Your task to perform on an android device: toggle pop-ups in chrome Image 0: 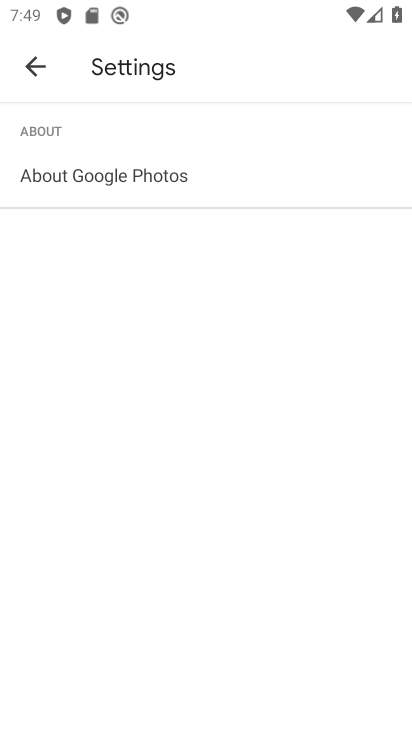
Step 0: press home button
Your task to perform on an android device: toggle pop-ups in chrome Image 1: 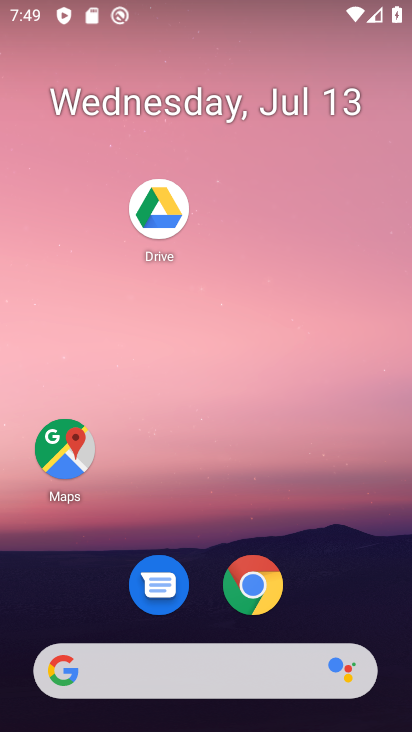
Step 1: click (243, 586)
Your task to perform on an android device: toggle pop-ups in chrome Image 2: 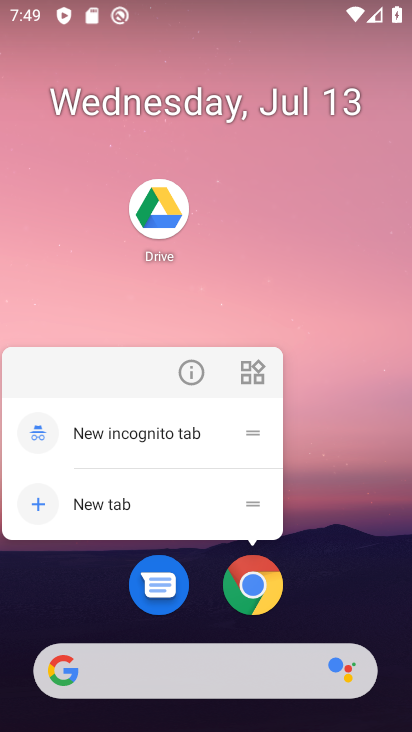
Step 2: click (247, 584)
Your task to perform on an android device: toggle pop-ups in chrome Image 3: 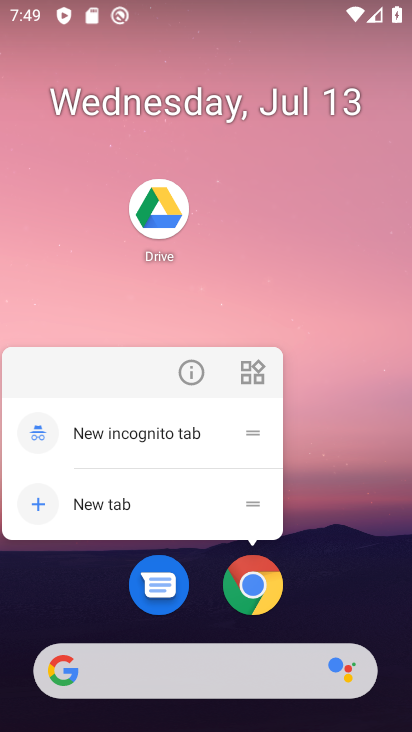
Step 3: click (247, 584)
Your task to perform on an android device: toggle pop-ups in chrome Image 4: 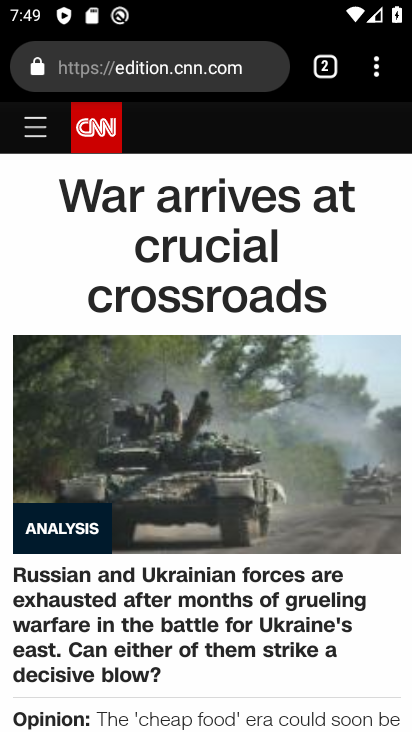
Step 4: drag from (372, 63) to (257, 597)
Your task to perform on an android device: toggle pop-ups in chrome Image 5: 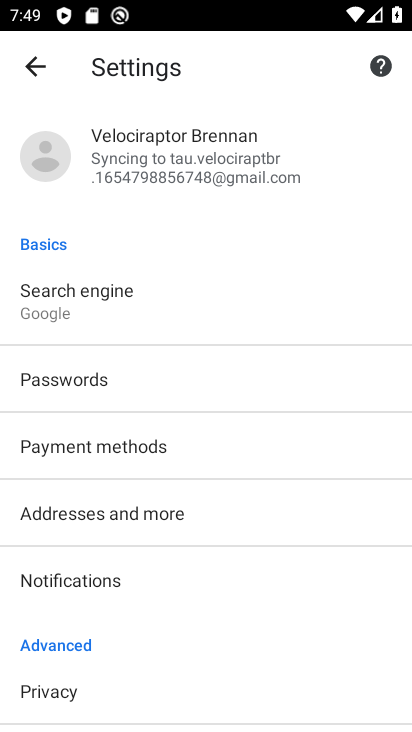
Step 5: drag from (185, 669) to (225, 285)
Your task to perform on an android device: toggle pop-ups in chrome Image 6: 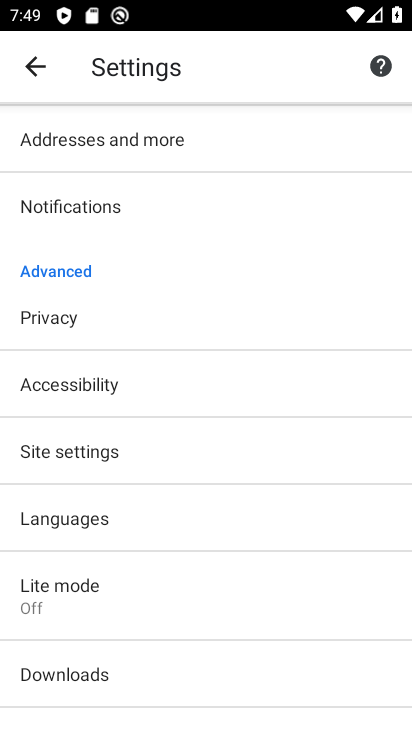
Step 6: click (108, 451)
Your task to perform on an android device: toggle pop-ups in chrome Image 7: 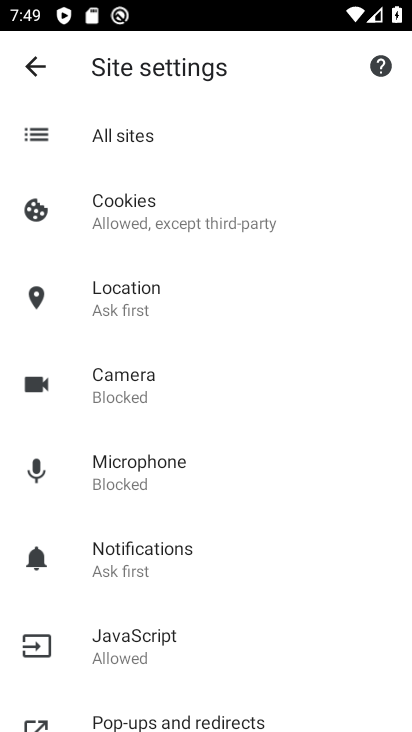
Step 7: drag from (252, 627) to (302, 322)
Your task to perform on an android device: toggle pop-ups in chrome Image 8: 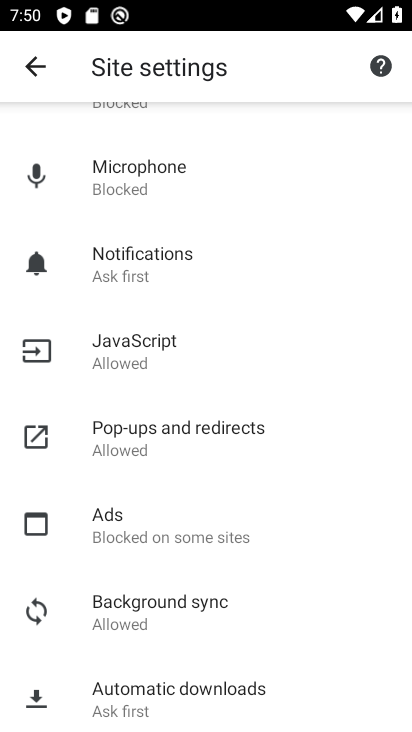
Step 8: click (183, 444)
Your task to perform on an android device: toggle pop-ups in chrome Image 9: 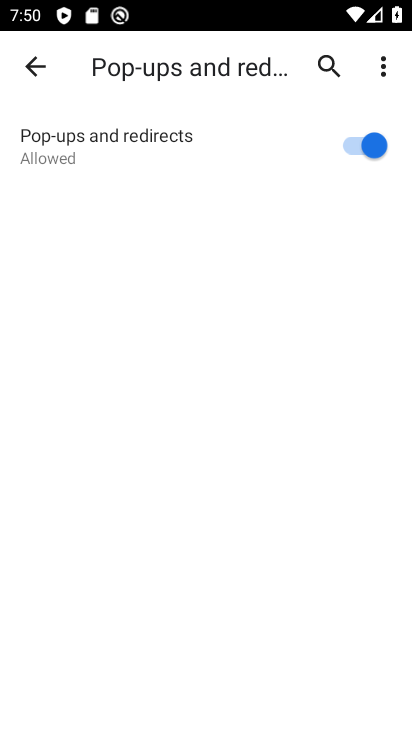
Step 9: click (352, 141)
Your task to perform on an android device: toggle pop-ups in chrome Image 10: 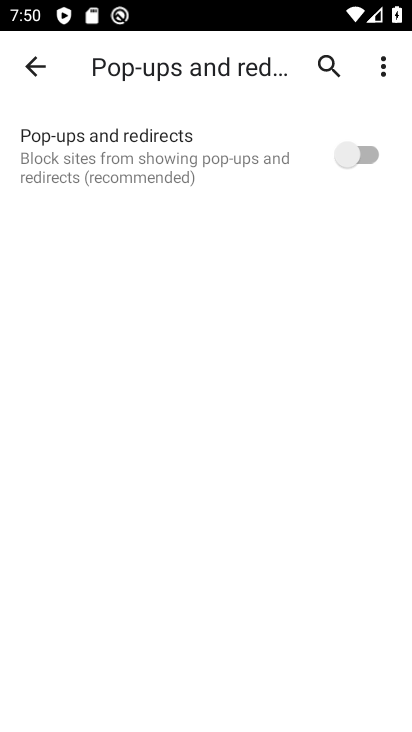
Step 10: task complete